Your task to perform on an android device: Open Chrome and go to settings Image 0: 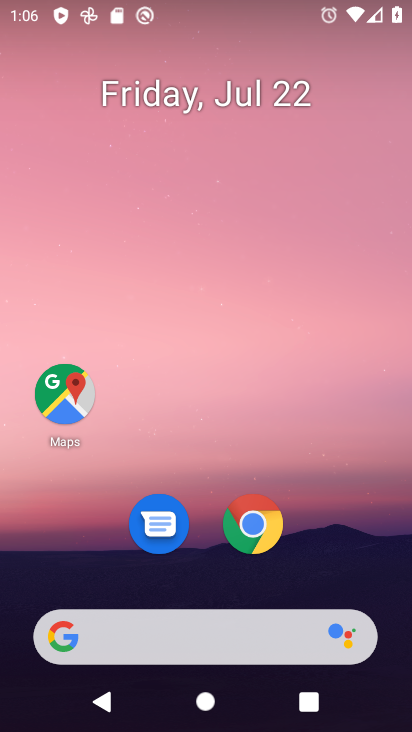
Step 0: press home button
Your task to perform on an android device: Open Chrome and go to settings Image 1: 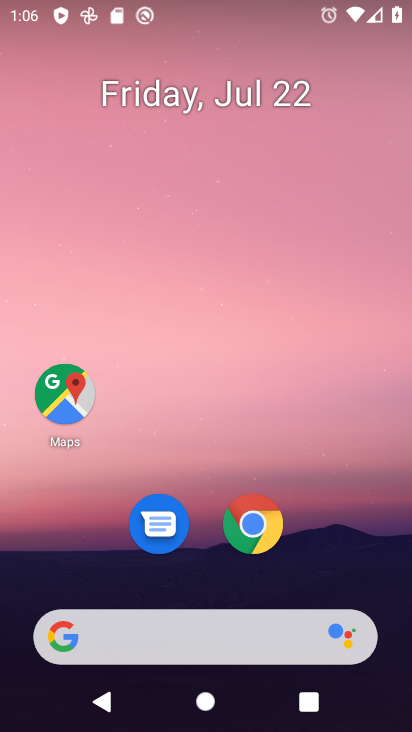
Step 1: click (257, 534)
Your task to perform on an android device: Open Chrome and go to settings Image 2: 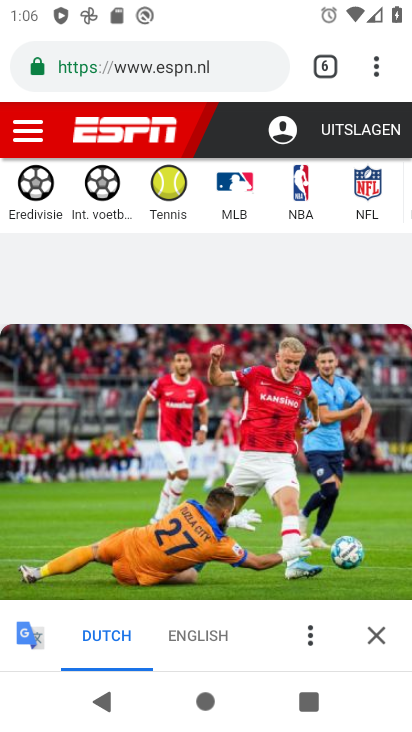
Step 2: task complete